Your task to perform on an android device: find which apps use the phone's location Image 0: 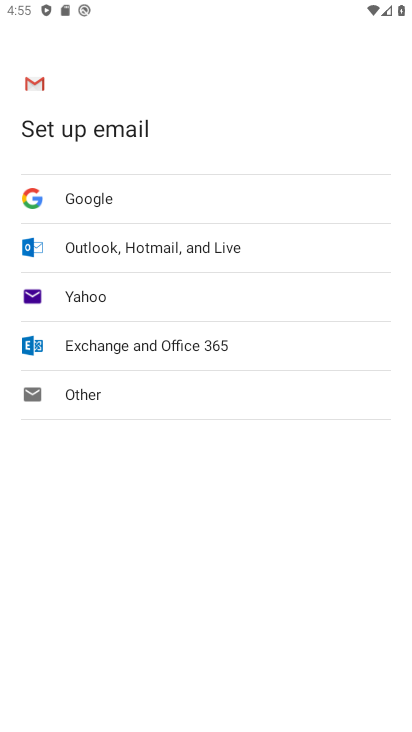
Step 0: press home button
Your task to perform on an android device: find which apps use the phone's location Image 1: 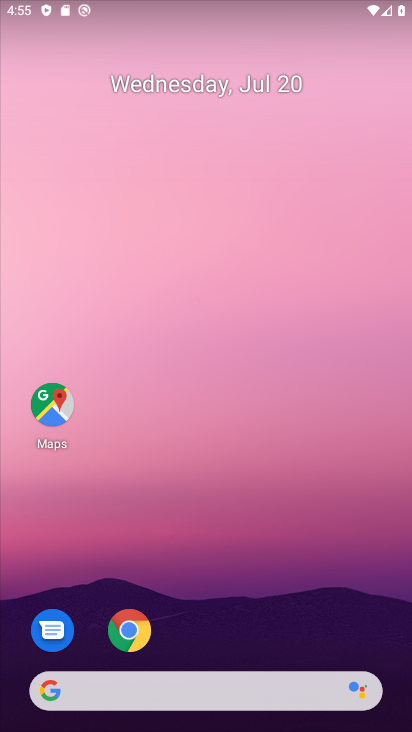
Step 1: drag from (188, 703) to (322, 35)
Your task to perform on an android device: find which apps use the phone's location Image 2: 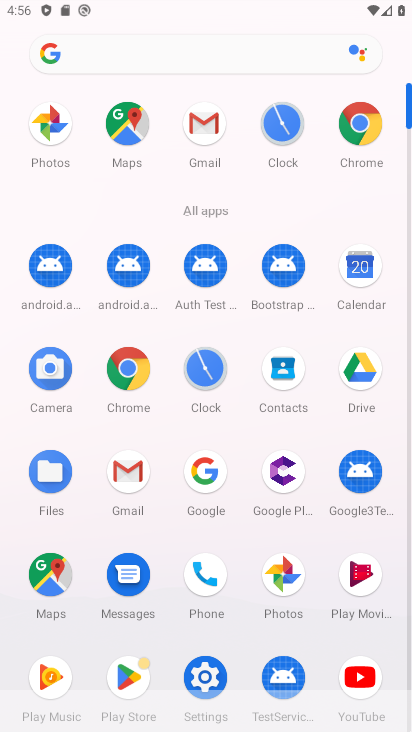
Step 2: click (116, 671)
Your task to perform on an android device: find which apps use the phone's location Image 3: 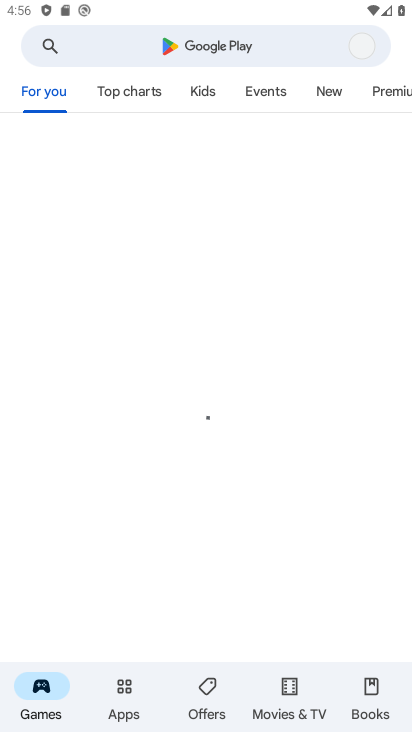
Step 3: press home button
Your task to perform on an android device: find which apps use the phone's location Image 4: 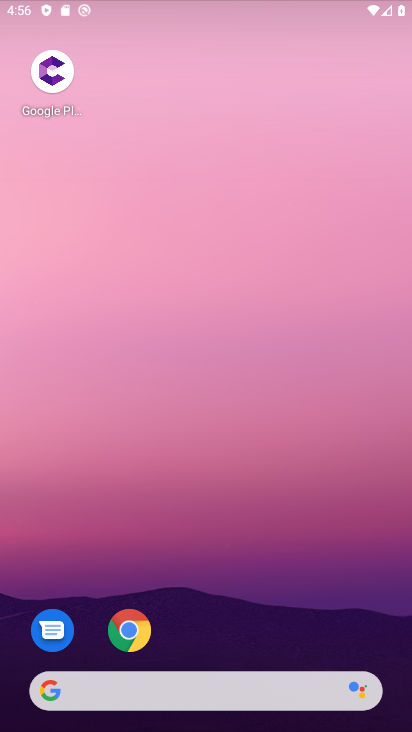
Step 4: drag from (175, 698) to (356, 6)
Your task to perform on an android device: find which apps use the phone's location Image 5: 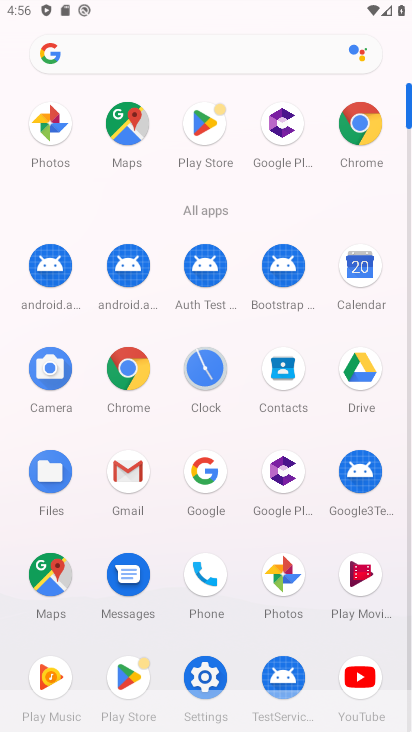
Step 5: click (208, 670)
Your task to perform on an android device: find which apps use the phone's location Image 6: 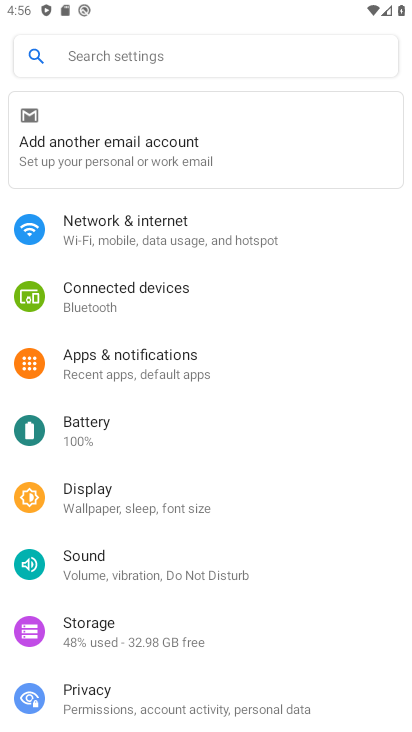
Step 6: drag from (144, 684) to (254, 104)
Your task to perform on an android device: find which apps use the phone's location Image 7: 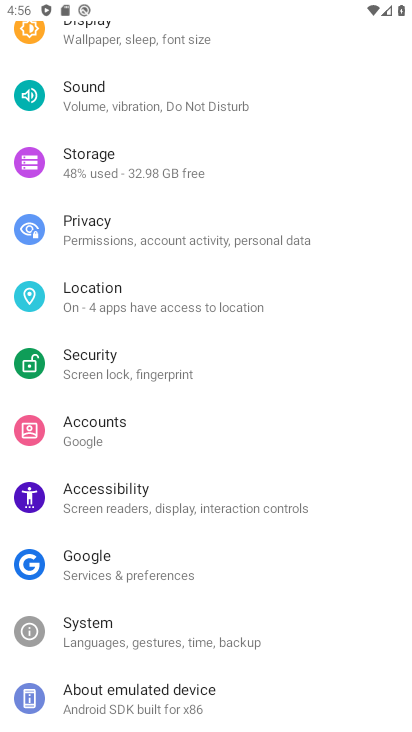
Step 7: click (133, 299)
Your task to perform on an android device: find which apps use the phone's location Image 8: 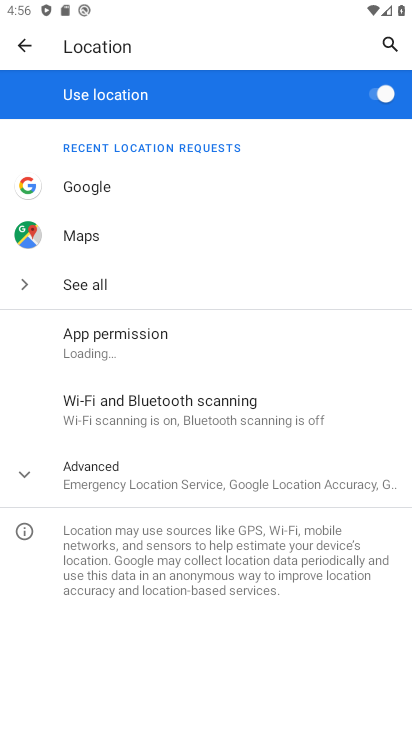
Step 8: click (165, 340)
Your task to perform on an android device: find which apps use the phone's location Image 9: 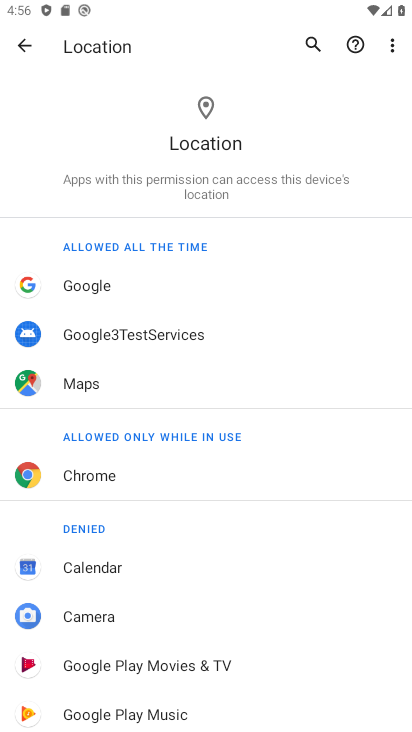
Step 9: task complete